Your task to perform on an android device: change the clock style Image 0: 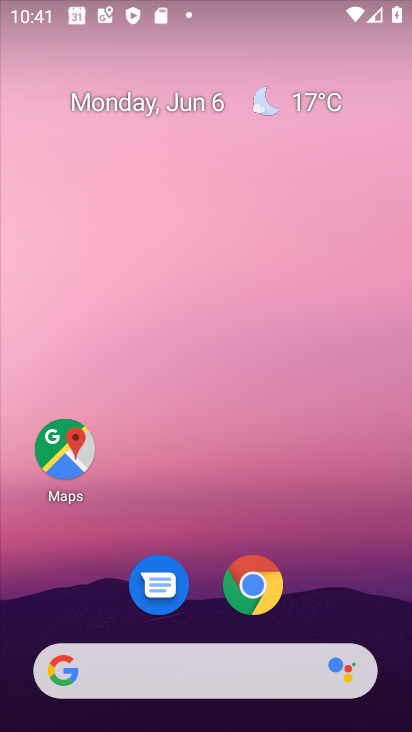
Step 0: drag from (218, 533) to (244, 1)
Your task to perform on an android device: change the clock style Image 1: 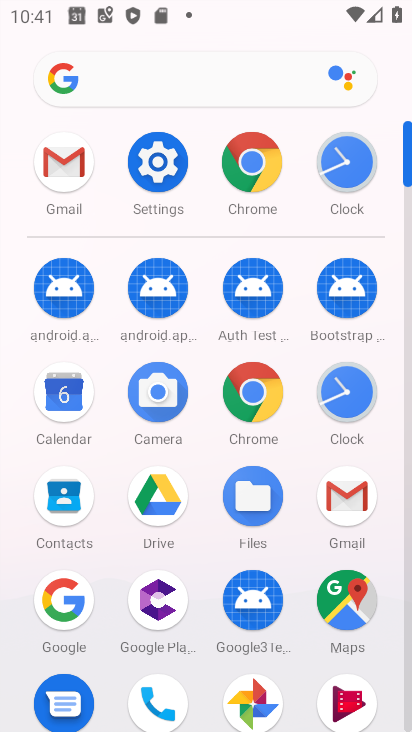
Step 1: click (345, 168)
Your task to perform on an android device: change the clock style Image 2: 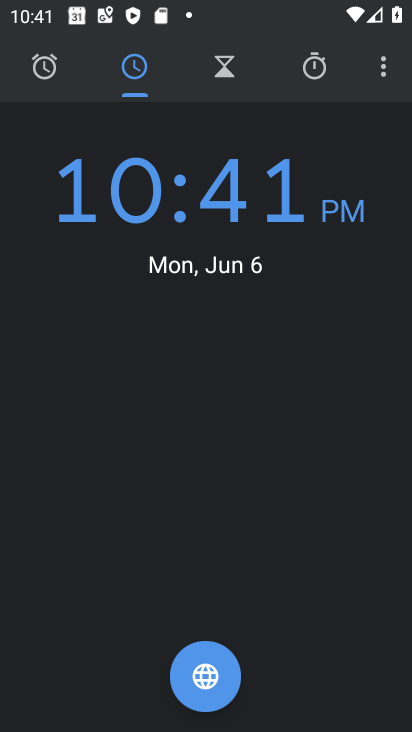
Step 2: click (382, 71)
Your task to perform on an android device: change the clock style Image 3: 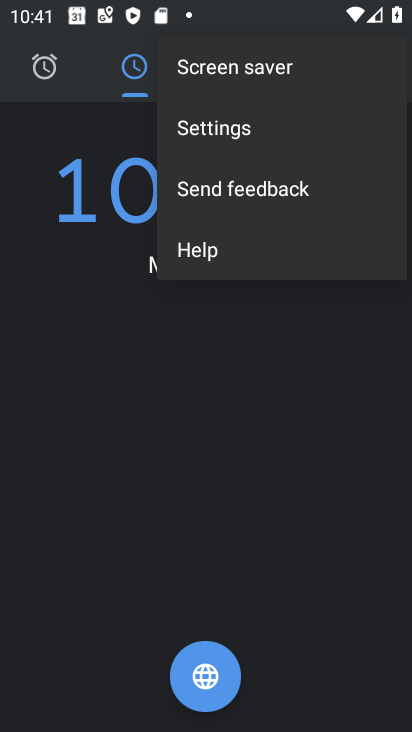
Step 3: click (294, 128)
Your task to perform on an android device: change the clock style Image 4: 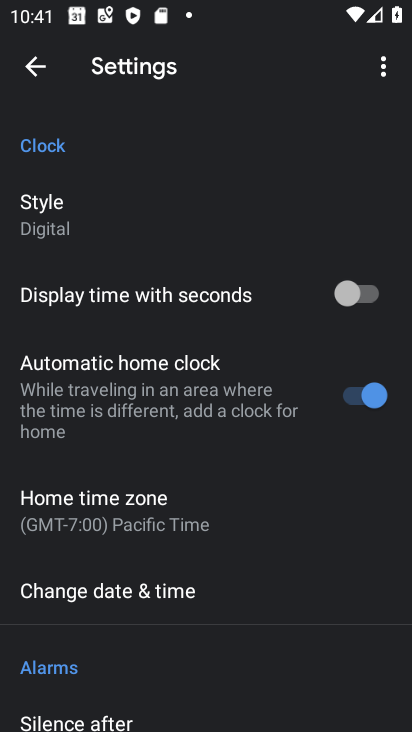
Step 4: drag from (217, 464) to (236, 209)
Your task to perform on an android device: change the clock style Image 5: 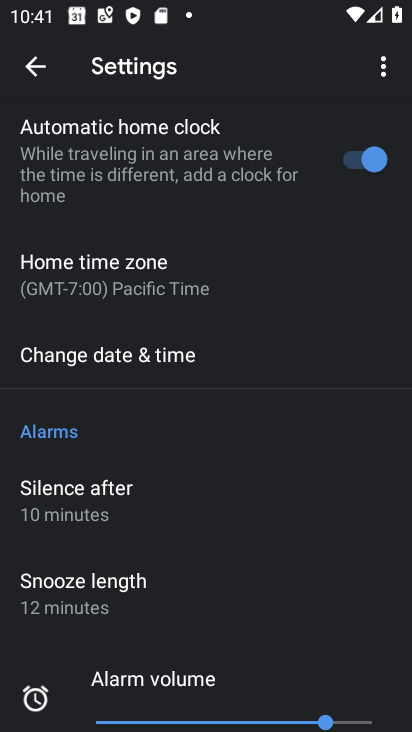
Step 5: drag from (241, 213) to (255, 507)
Your task to perform on an android device: change the clock style Image 6: 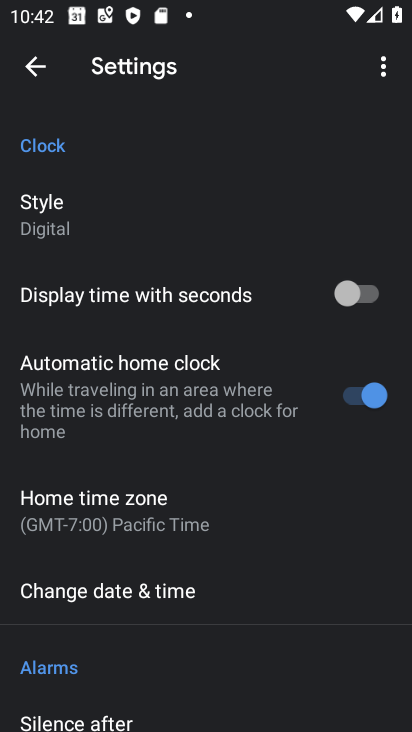
Step 6: click (61, 219)
Your task to perform on an android device: change the clock style Image 7: 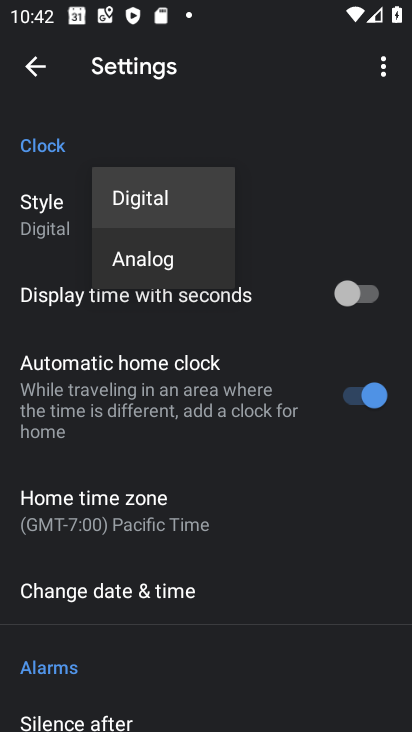
Step 7: click (126, 254)
Your task to perform on an android device: change the clock style Image 8: 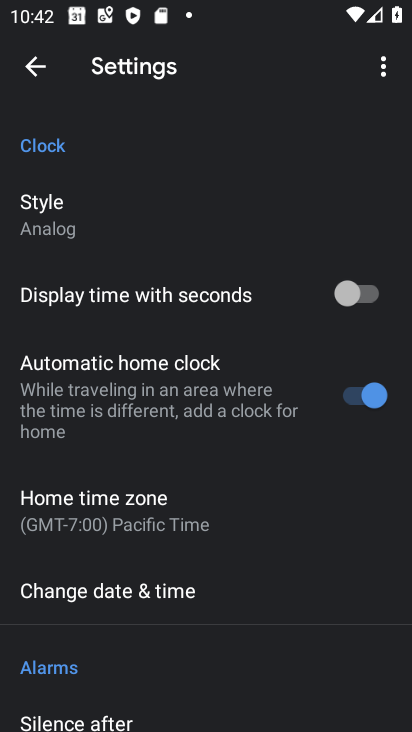
Step 8: task complete